Your task to perform on an android device: turn on showing notifications on the lock screen Image 0: 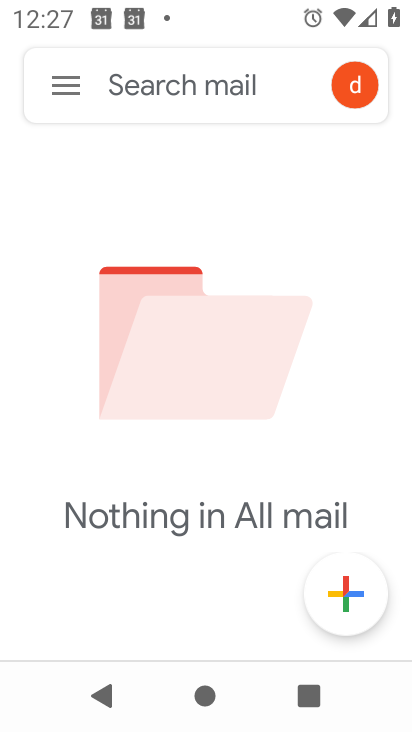
Step 0: press home button
Your task to perform on an android device: turn on showing notifications on the lock screen Image 1: 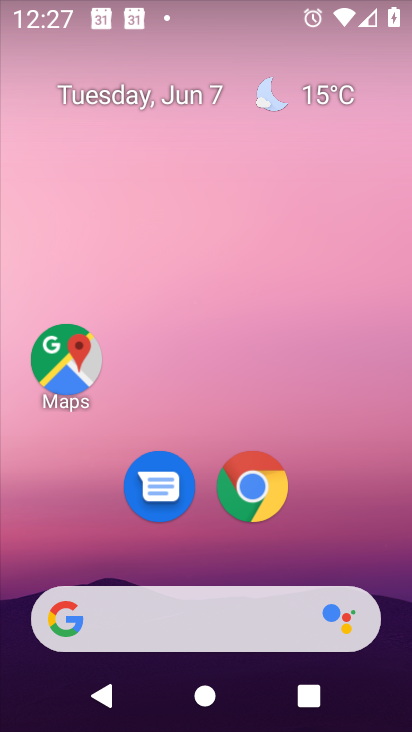
Step 1: drag from (319, 504) to (228, 20)
Your task to perform on an android device: turn on showing notifications on the lock screen Image 2: 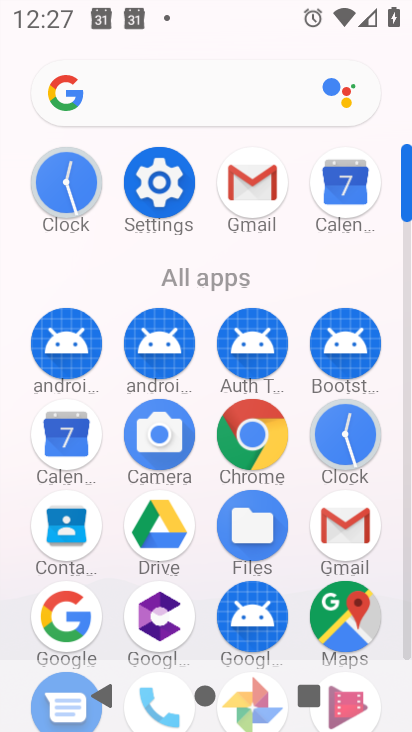
Step 2: click (172, 192)
Your task to perform on an android device: turn on showing notifications on the lock screen Image 3: 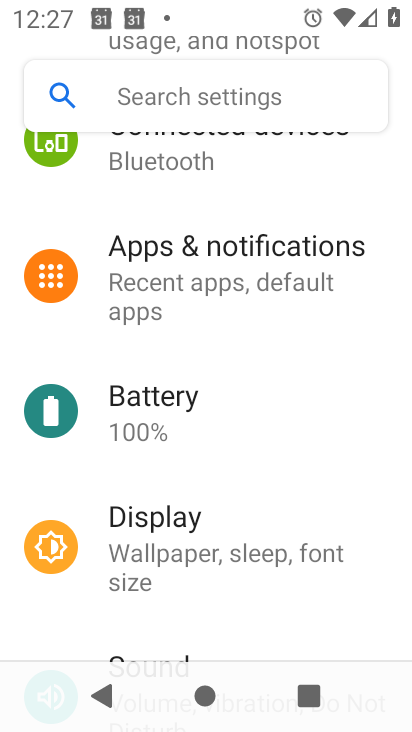
Step 3: click (220, 272)
Your task to perform on an android device: turn on showing notifications on the lock screen Image 4: 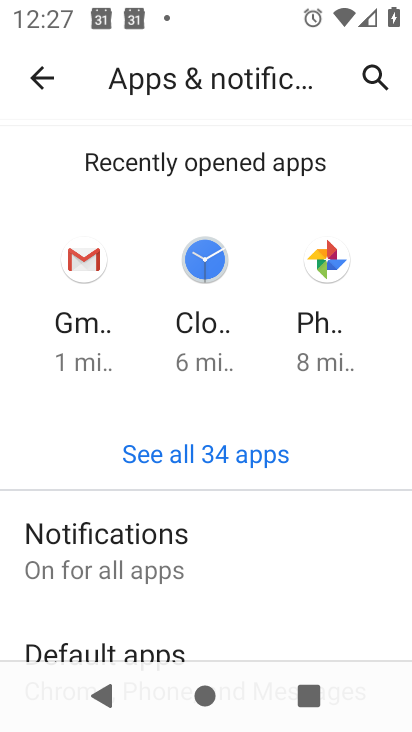
Step 4: click (192, 557)
Your task to perform on an android device: turn on showing notifications on the lock screen Image 5: 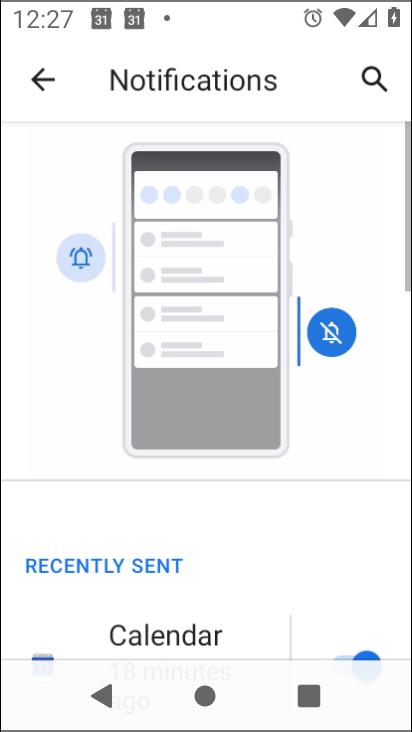
Step 5: drag from (230, 563) to (266, 108)
Your task to perform on an android device: turn on showing notifications on the lock screen Image 6: 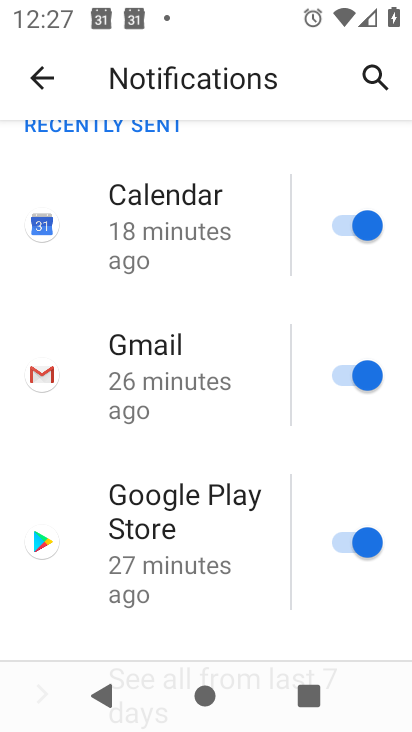
Step 6: drag from (209, 497) to (230, 68)
Your task to perform on an android device: turn on showing notifications on the lock screen Image 7: 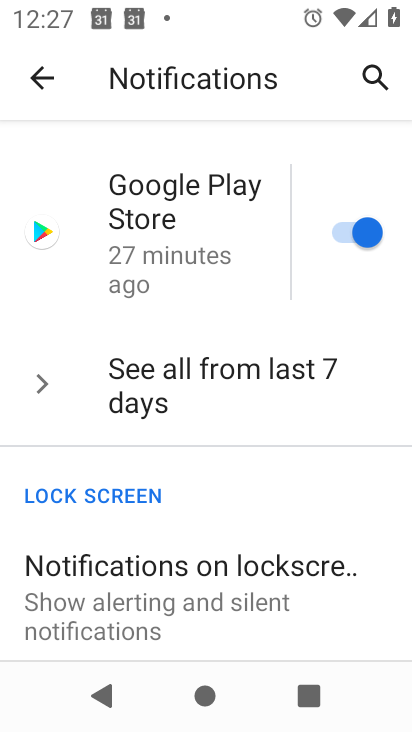
Step 7: click (218, 556)
Your task to perform on an android device: turn on showing notifications on the lock screen Image 8: 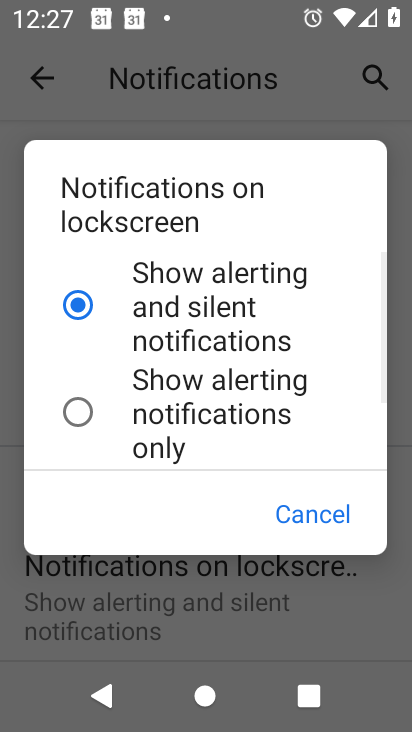
Step 8: task complete